Your task to perform on an android device: delete browsing data in the chrome app Image 0: 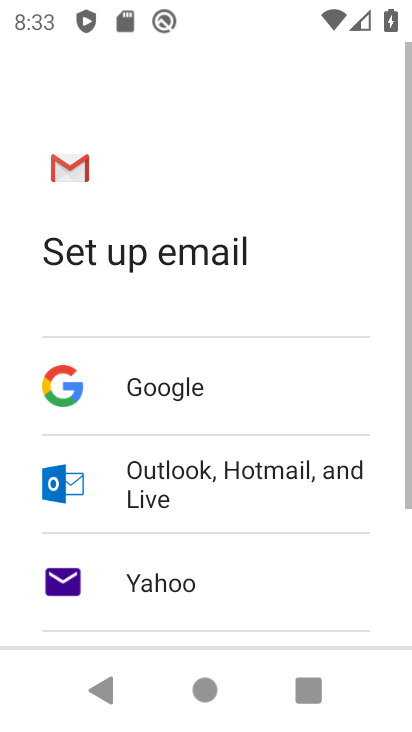
Step 0: press home button
Your task to perform on an android device: delete browsing data in the chrome app Image 1: 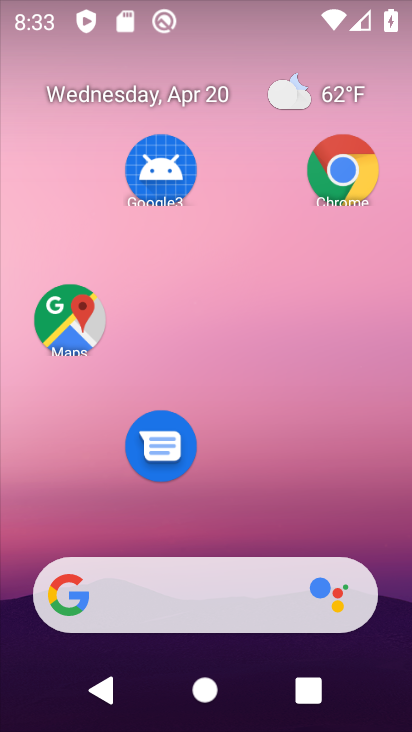
Step 1: click (347, 172)
Your task to perform on an android device: delete browsing data in the chrome app Image 2: 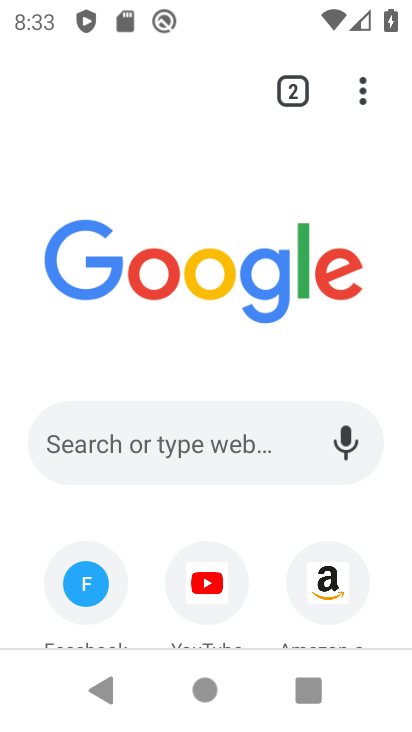
Step 2: click (356, 91)
Your task to perform on an android device: delete browsing data in the chrome app Image 3: 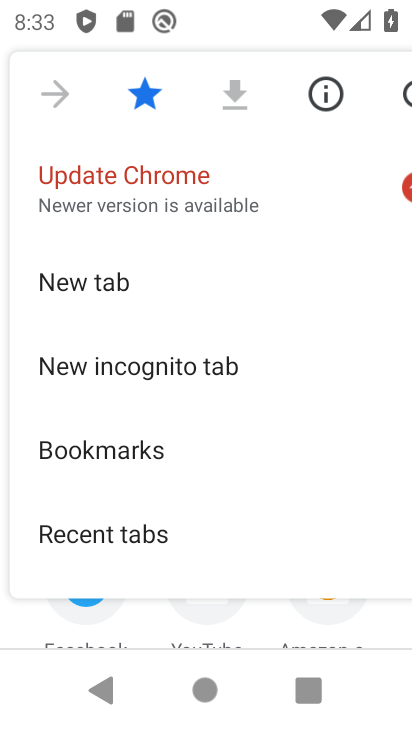
Step 3: drag from (247, 426) to (266, 150)
Your task to perform on an android device: delete browsing data in the chrome app Image 4: 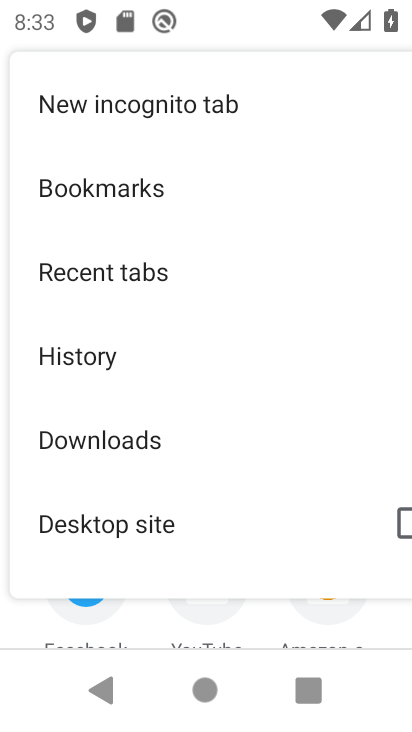
Step 4: drag from (221, 484) to (228, 252)
Your task to perform on an android device: delete browsing data in the chrome app Image 5: 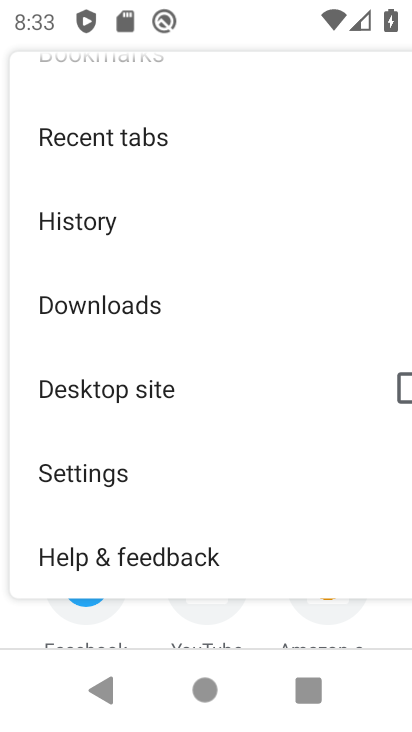
Step 5: click (103, 223)
Your task to perform on an android device: delete browsing data in the chrome app Image 6: 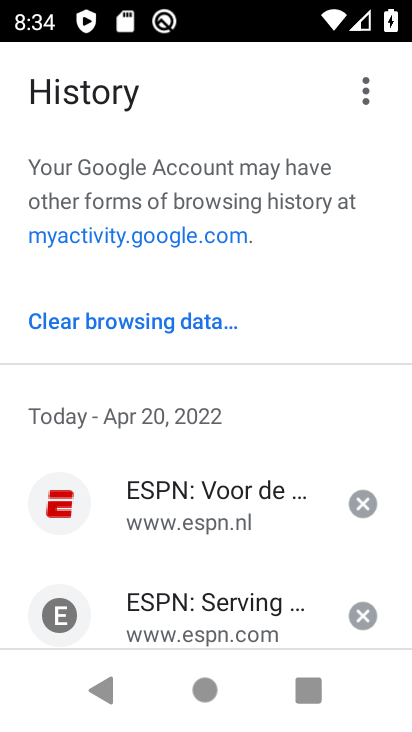
Step 6: click (127, 319)
Your task to perform on an android device: delete browsing data in the chrome app Image 7: 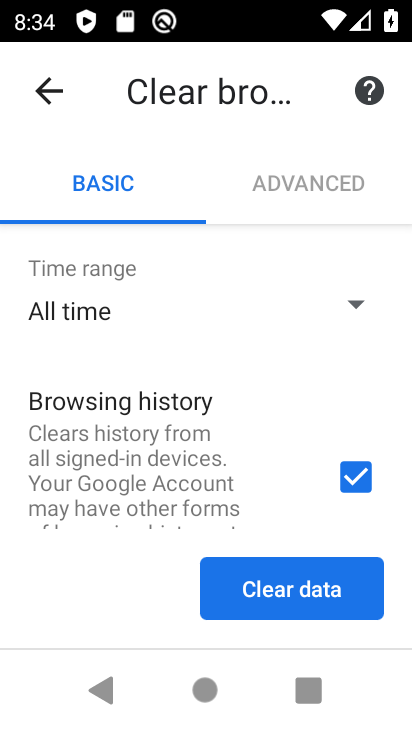
Step 7: click (271, 585)
Your task to perform on an android device: delete browsing data in the chrome app Image 8: 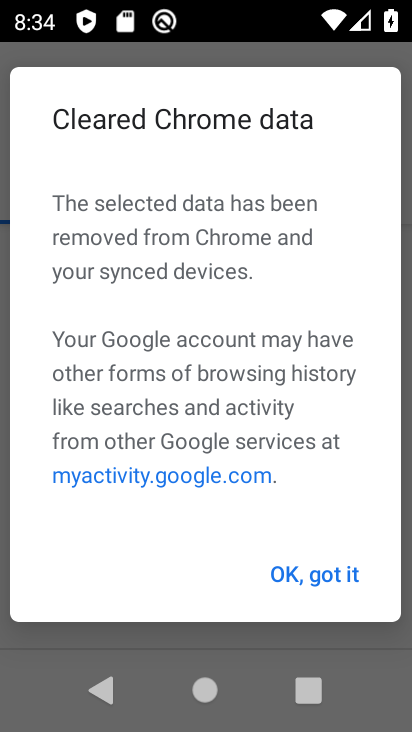
Step 8: click (301, 575)
Your task to perform on an android device: delete browsing data in the chrome app Image 9: 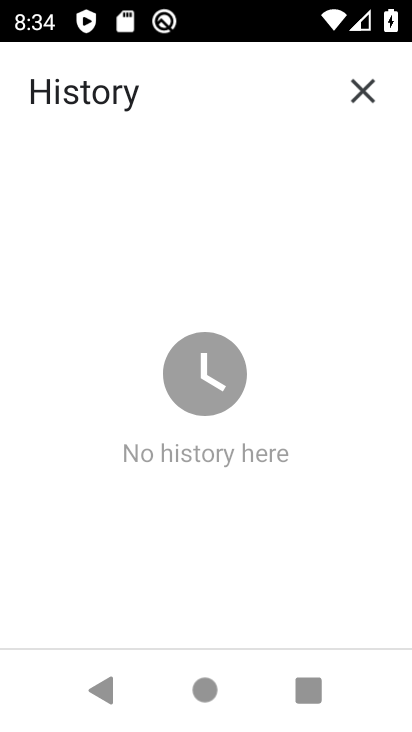
Step 9: task complete